Your task to perform on an android device: turn pop-ups on in chrome Image 0: 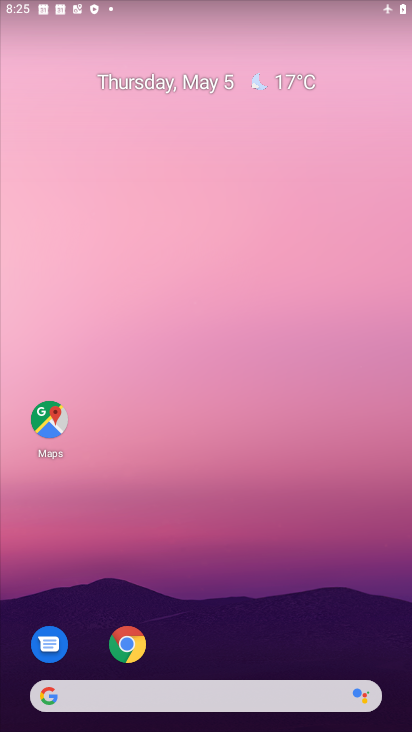
Step 0: drag from (211, 655) to (241, 211)
Your task to perform on an android device: turn pop-ups on in chrome Image 1: 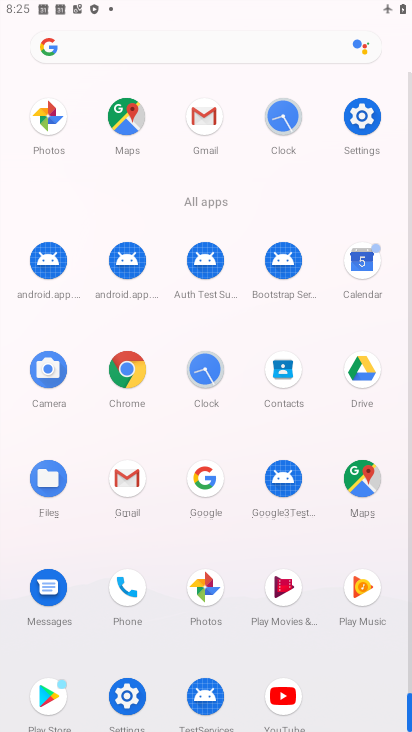
Step 1: click (121, 370)
Your task to perform on an android device: turn pop-ups on in chrome Image 2: 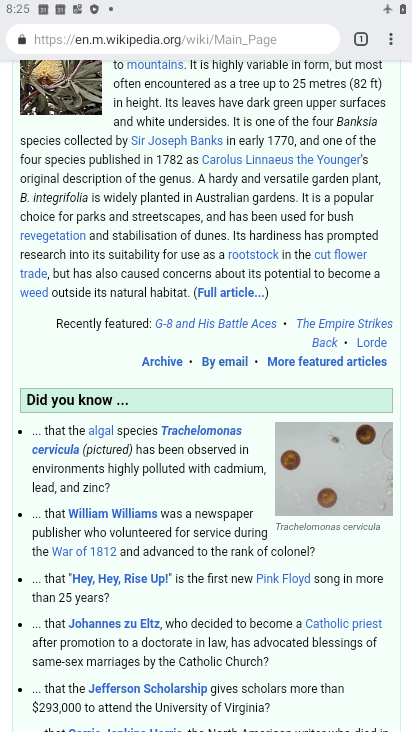
Step 2: drag from (242, 613) to (250, 325)
Your task to perform on an android device: turn pop-ups on in chrome Image 3: 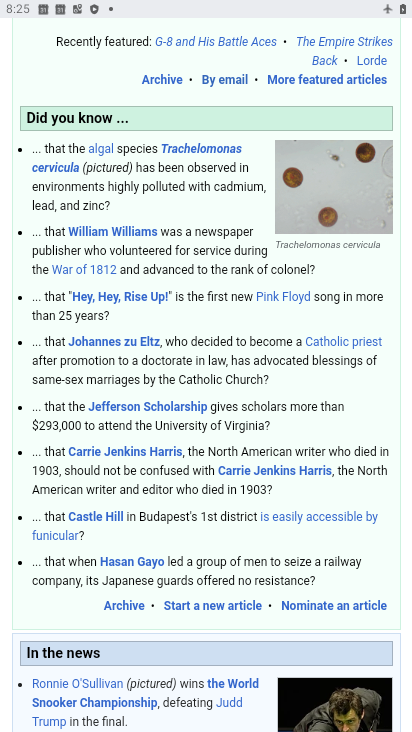
Step 3: drag from (216, 513) to (228, 338)
Your task to perform on an android device: turn pop-ups on in chrome Image 4: 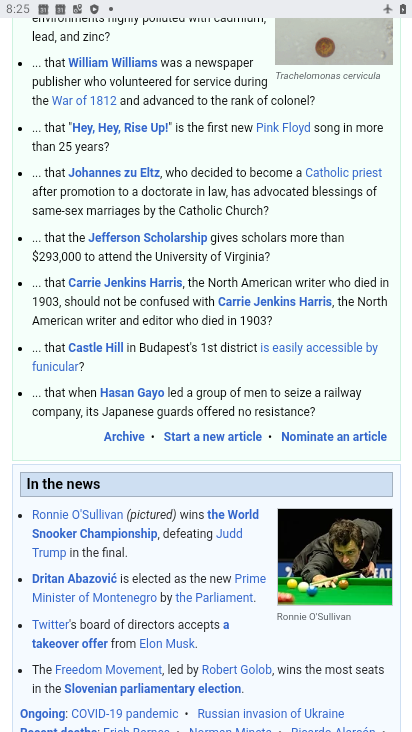
Step 4: drag from (188, 298) to (247, 667)
Your task to perform on an android device: turn pop-ups on in chrome Image 5: 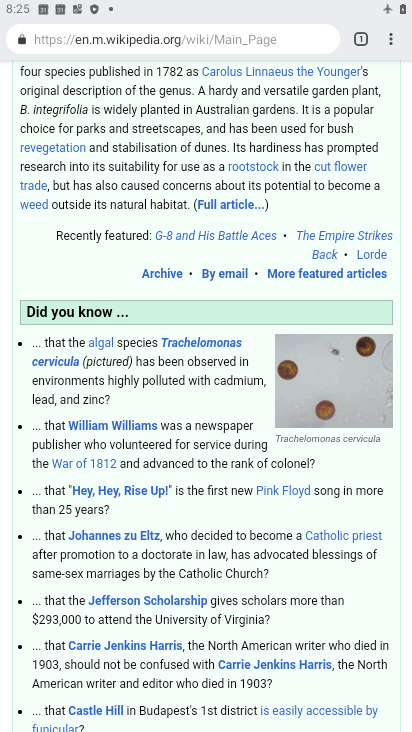
Step 5: click (390, 39)
Your task to perform on an android device: turn pop-ups on in chrome Image 6: 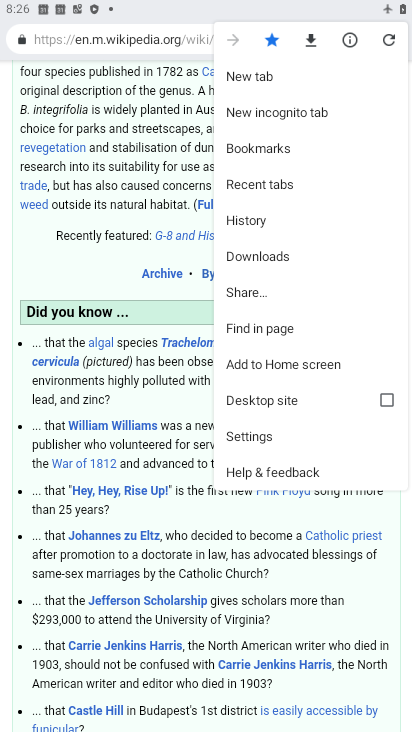
Step 6: click (258, 437)
Your task to perform on an android device: turn pop-ups on in chrome Image 7: 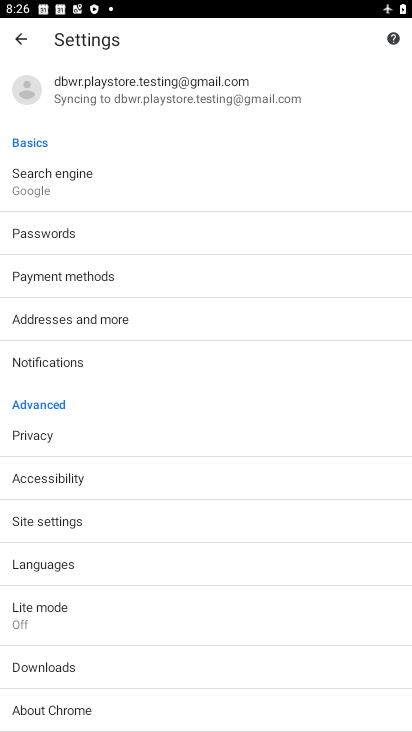
Step 7: drag from (239, 619) to (226, 175)
Your task to perform on an android device: turn pop-ups on in chrome Image 8: 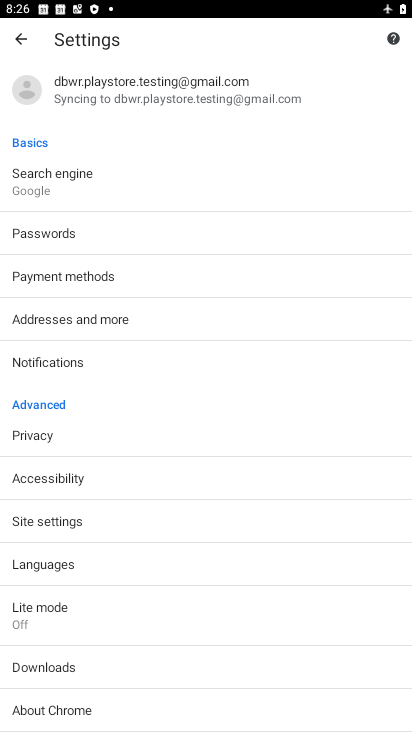
Step 8: click (66, 517)
Your task to perform on an android device: turn pop-ups on in chrome Image 9: 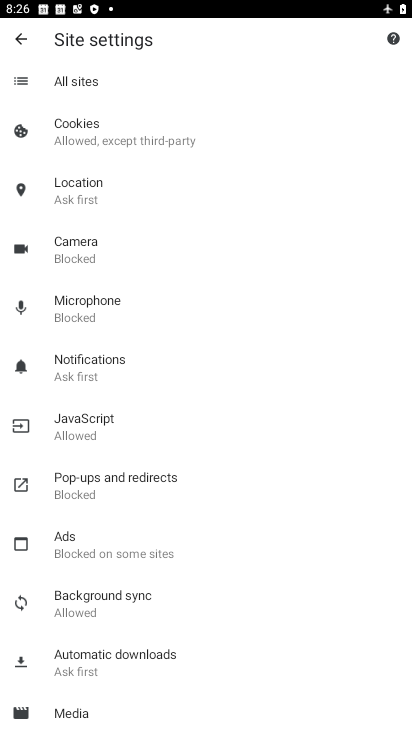
Step 9: drag from (231, 648) to (190, 302)
Your task to perform on an android device: turn pop-ups on in chrome Image 10: 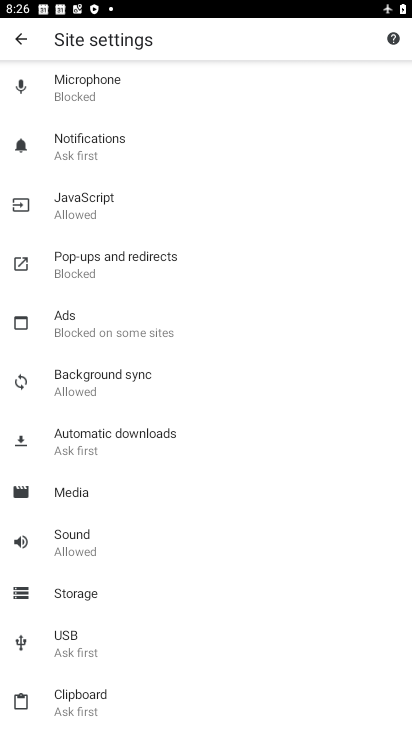
Step 10: drag from (158, 591) to (216, 256)
Your task to perform on an android device: turn pop-ups on in chrome Image 11: 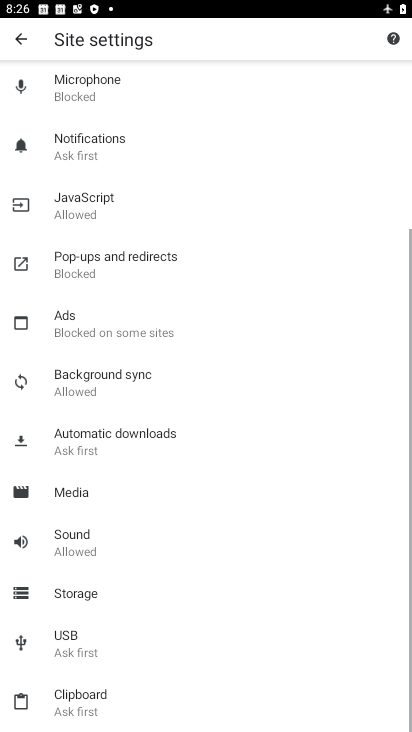
Step 11: drag from (207, 211) to (246, 582)
Your task to perform on an android device: turn pop-ups on in chrome Image 12: 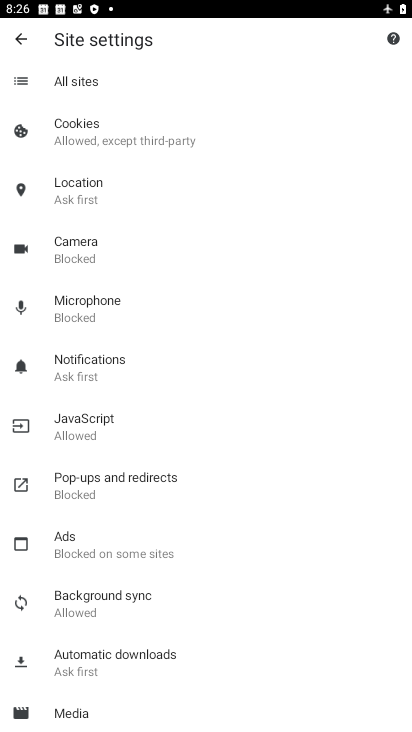
Step 12: click (134, 484)
Your task to perform on an android device: turn pop-ups on in chrome Image 13: 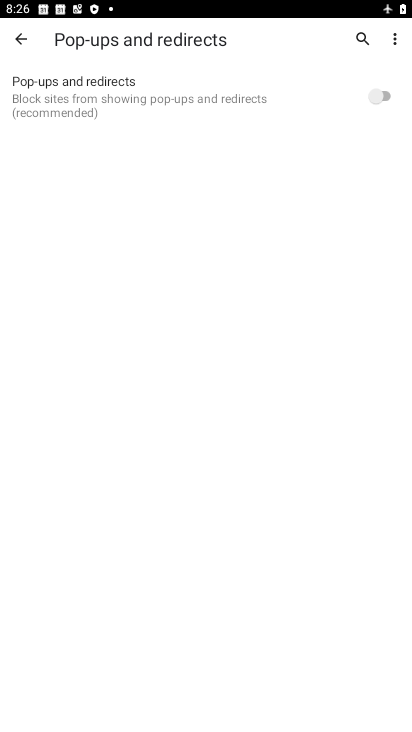
Step 13: click (377, 93)
Your task to perform on an android device: turn pop-ups on in chrome Image 14: 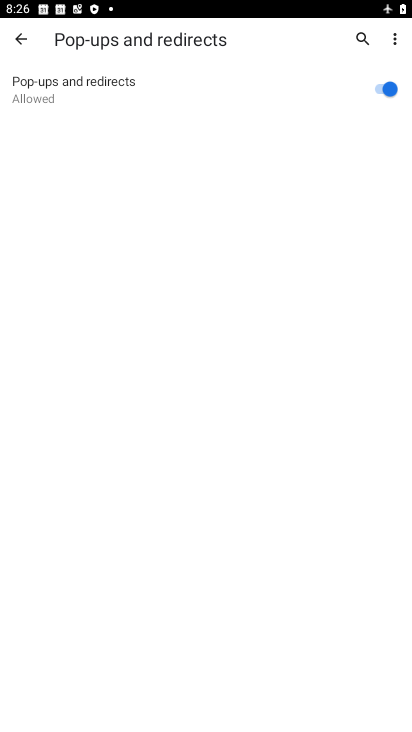
Step 14: task complete